Your task to perform on an android device: Open accessibility settings Image 0: 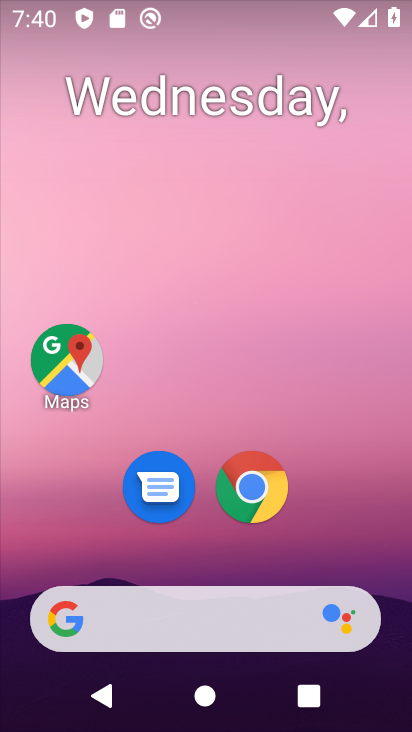
Step 0: drag from (385, 459) to (367, 112)
Your task to perform on an android device: Open accessibility settings Image 1: 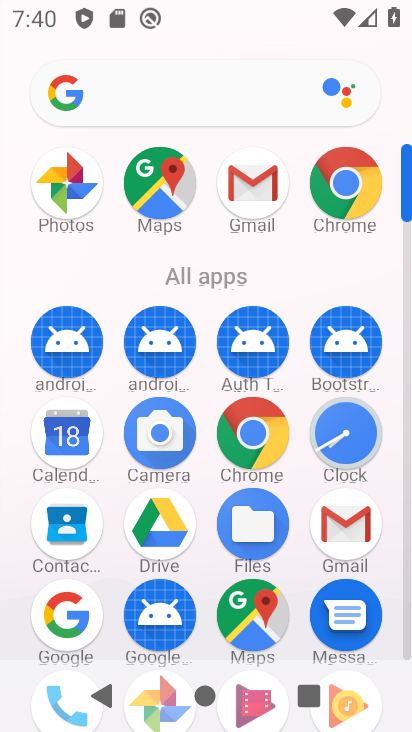
Step 1: drag from (398, 513) to (403, 294)
Your task to perform on an android device: Open accessibility settings Image 2: 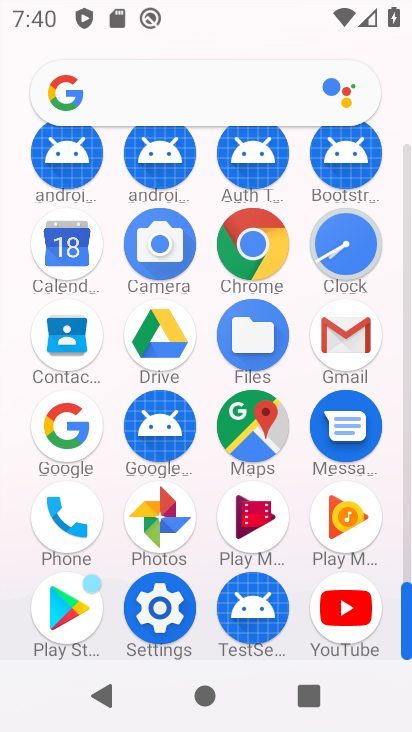
Step 2: click (169, 623)
Your task to perform on an android device: Open accessibility settings Image 3: 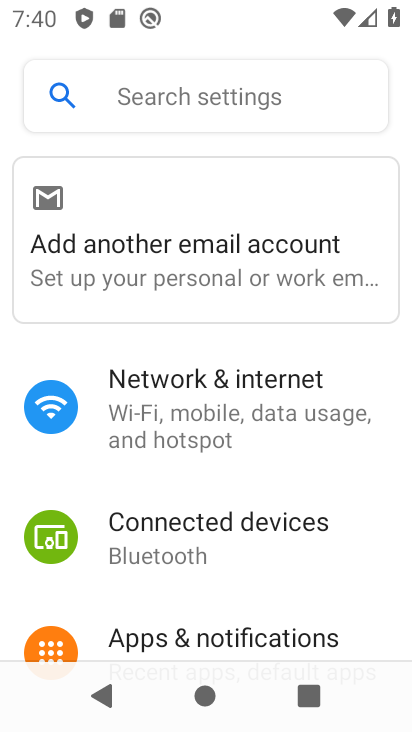
Step 3: drag from (359, 514) to (359, 433)
Your task to perform on an android device: Open accessibility settings Image 4: 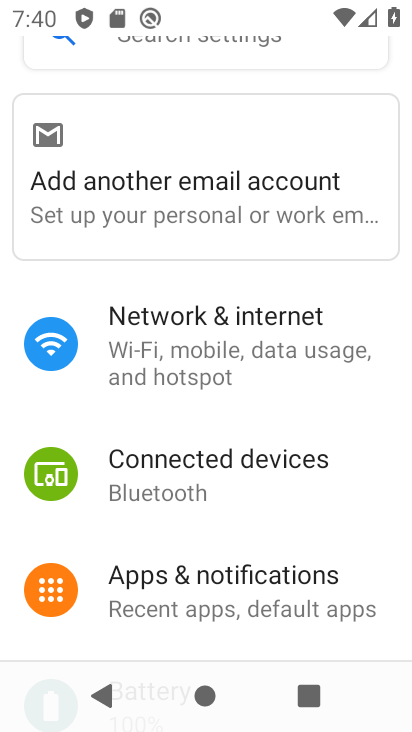
Step 4: drag from (365, 628) to (364, 450)
Your task to perform on an android device: Open accessibility settings Image 5: 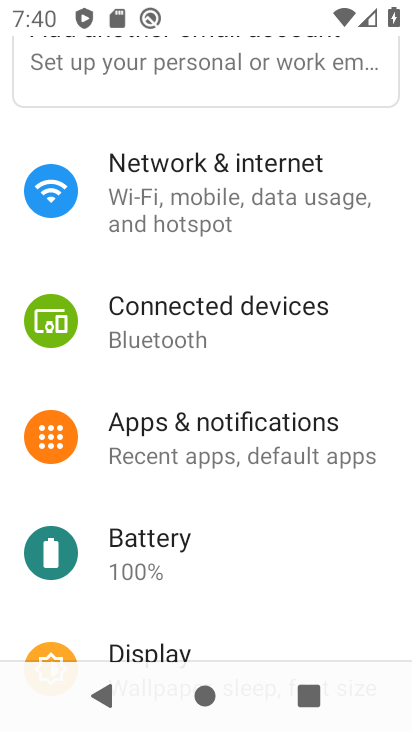
Step 5: drag from (359, 601) to (373, 458)
Your task to perform on an android device: Open accessibility settings Image 6: 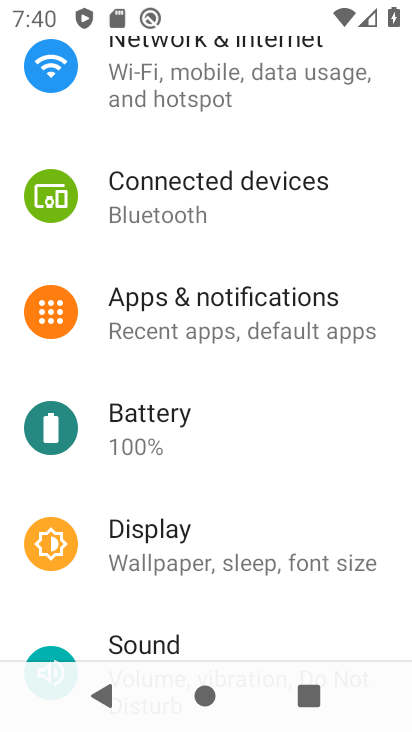
Step 6: drag from (365, 613) to (363, 439)
Your task to perform on an android device: Open accessibility settings Image 7: 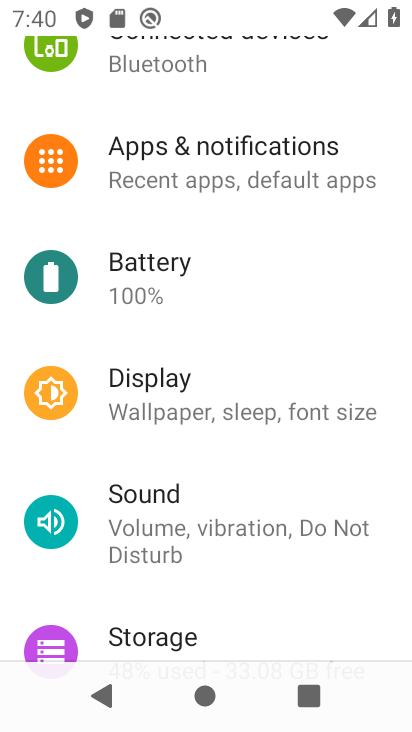
Step 7: drag from (366, 604) to (365, 474)
Your task to perform on an android device: Open accessibility settings Image 8: 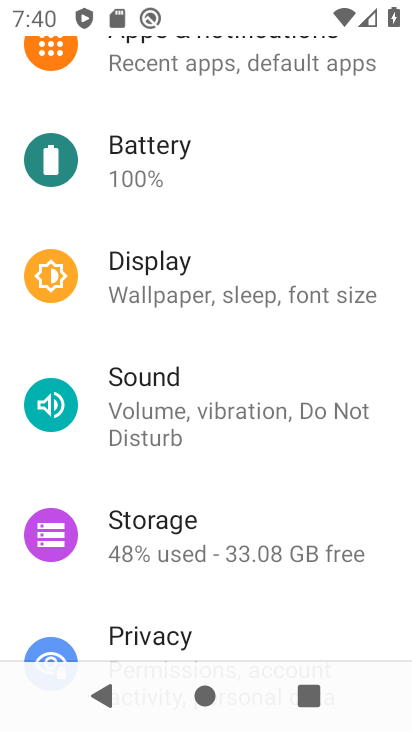
Step 8: drag from (364, 527) to (364, 491)
Your task to perform on an android device: Open accessibility settings Image 9: 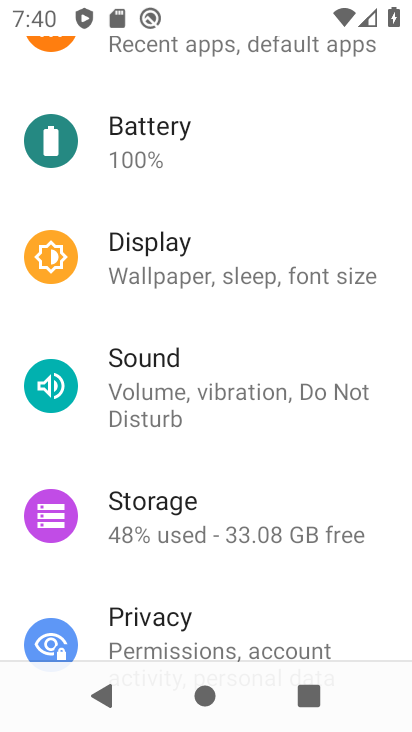
Step 9: drag from (365, 629) to (366, 487)
Your task to perform on an android device: Open accessibility settings Image 10: 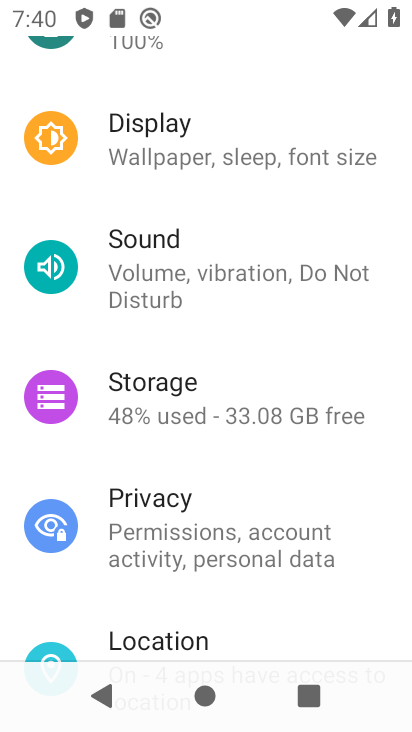
Step 10: drag from (366, 602) to (355, 510)
Your task to perform on an android device: Open accessibility settings Image 11: 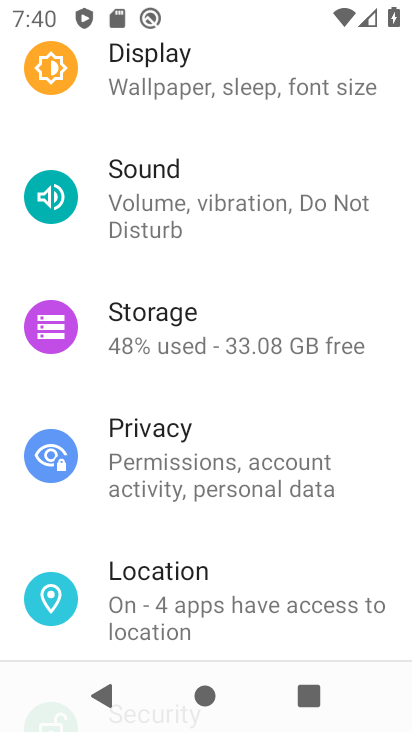
Step 11: drag from (385, 624) to (390, 521)
Your task to perform on an android device: Open accessibility settings Image 12: 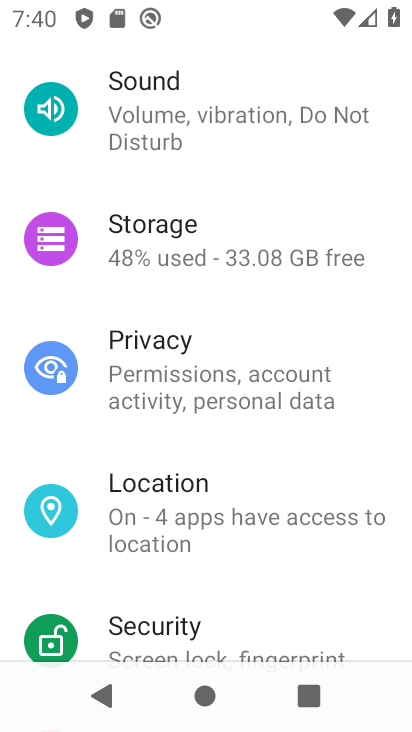
Step 12: drag from (343, 589) to (346, 511)
Your task to perform on an android device: Open accessibility settings Image 13: 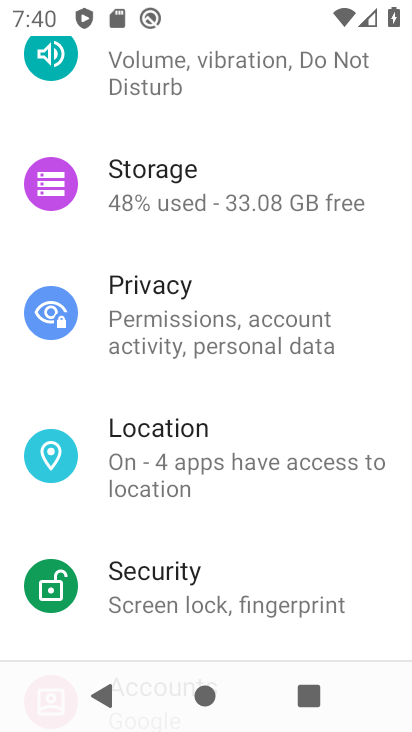
Step 13: drag from (366, 604) to (376, 472)
Your task to perform on an android device: Open accessibility settings Image 14: 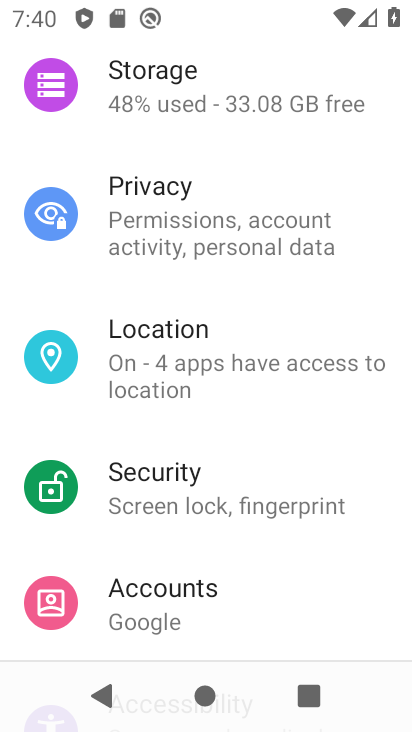
Step 14: drag from (361, 605) to (362, 451)
Your task to perform on an android device: Open accessibility settings Image 15: 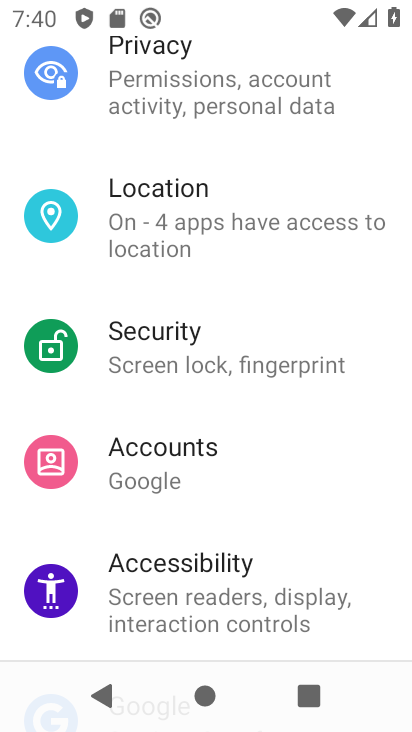
Step 15: drag from (377, 613) to (375, 490)
Your task to perform on an android device: Open accessibility settings Image 16: 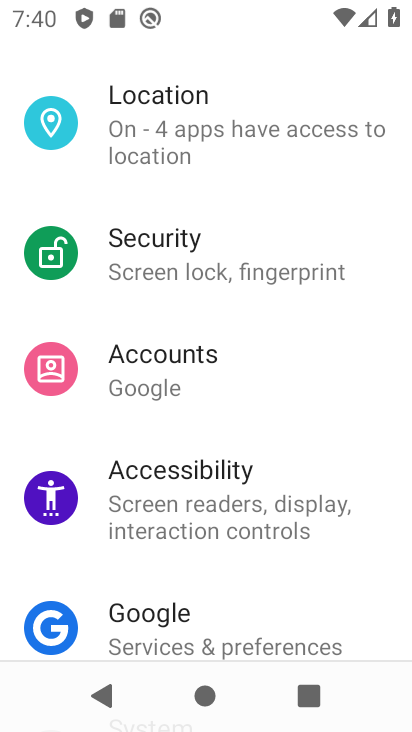
Step 16: drag from (367, 593) to (367, 459)
Your task to perform on an android device: Open accessibility settings Image 17: 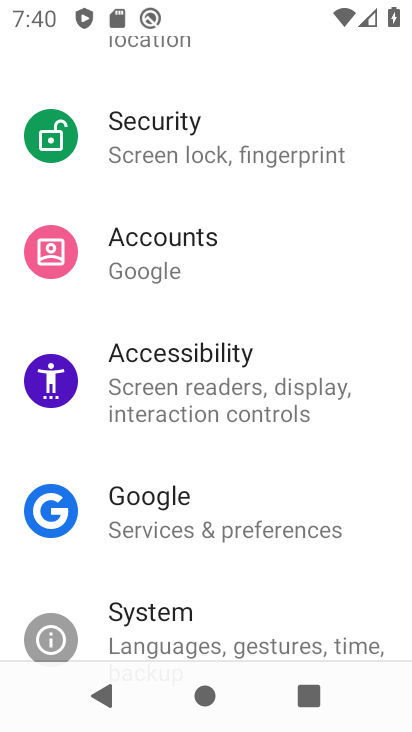
Step 17: drag from (373, 595) to (366, 447)
Your task to perform on an android device: Open accessibility settings Image 18: 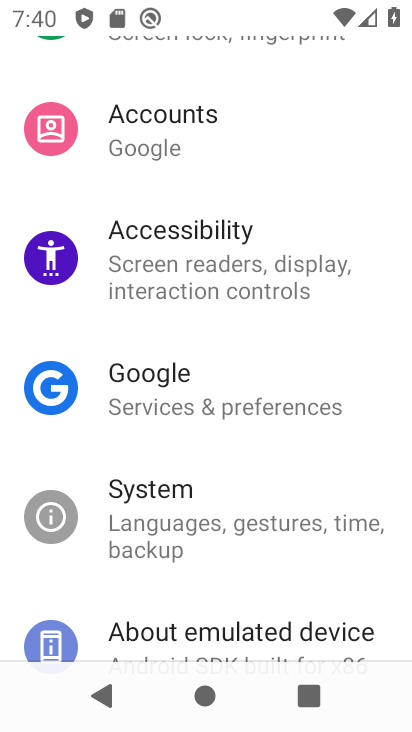
Step 18: click (278, 282)
Your task to perform on an android device: Open accessibility settings Image 19: 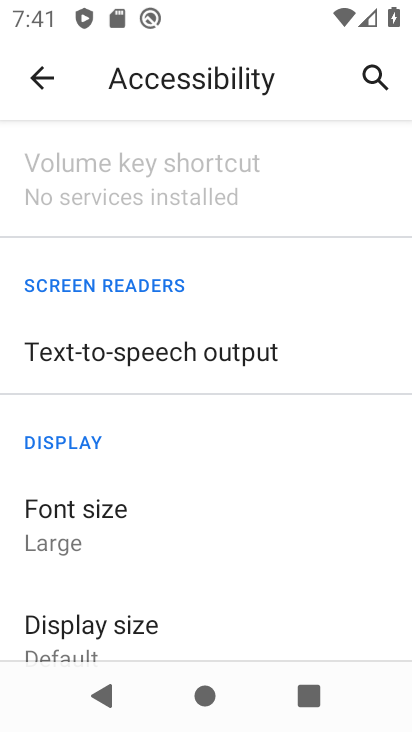
Step 19: task complete